Your task to perform on an android device: Go to calendar. Show me events next week Image 0: 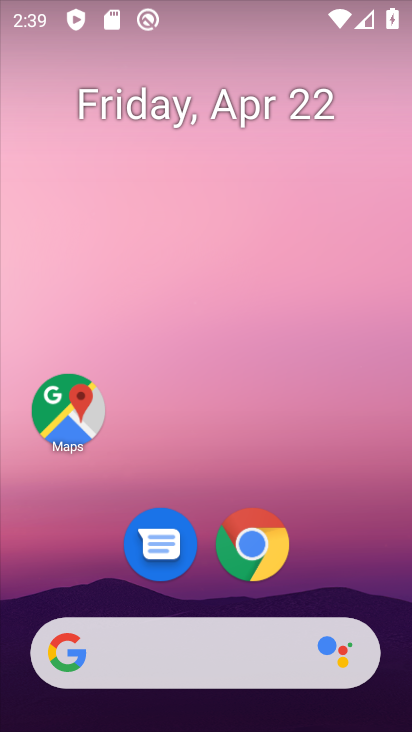
Step 0: drag from (313, 586) to (335, 221)
Your task to perform on an android device: Go to calendar. Show me events next week Image 1: 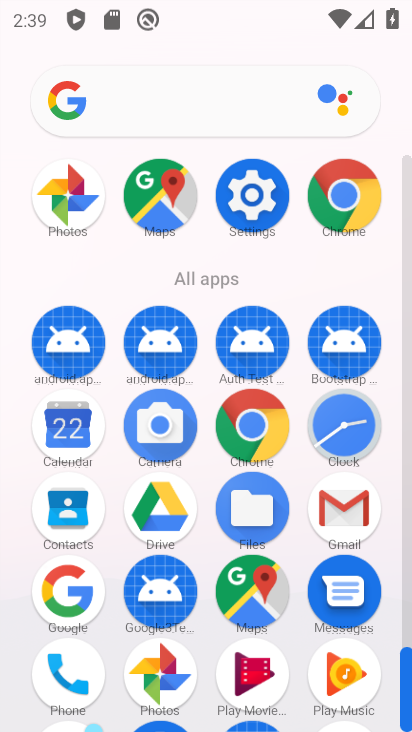
Step 1: click (80, 449)
Your task to perform on an android device: Go to calendar. Show me events next week Image 2: 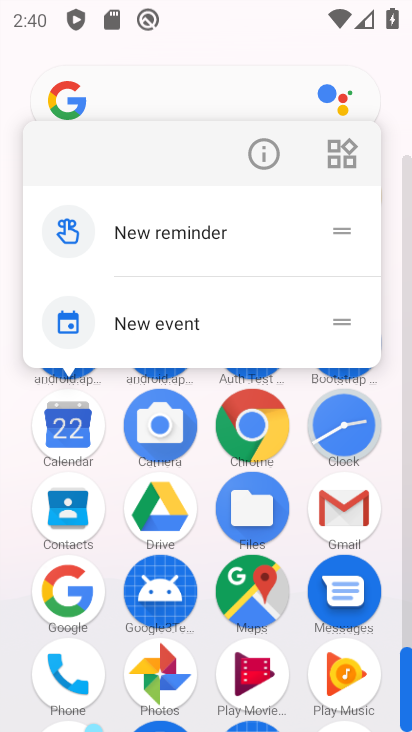
Step 2: click (68, 441)
Your task to perform on an android device: Go to calendar. Show me events next week Image 3: 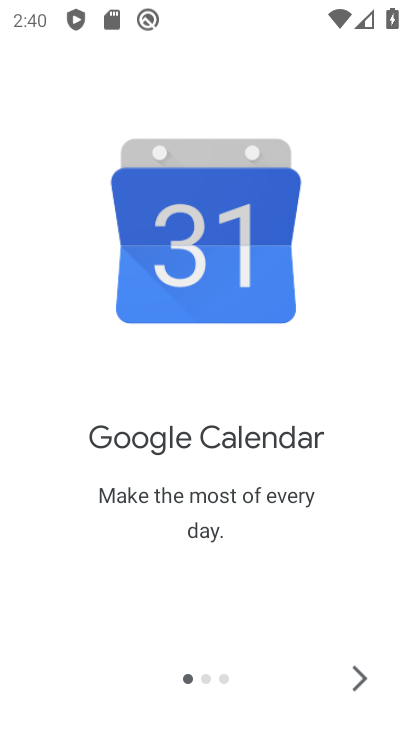
Step 3: click (357, 678)
Your task to perform on an android device: Go to calendar. Show me events next week Image 4: 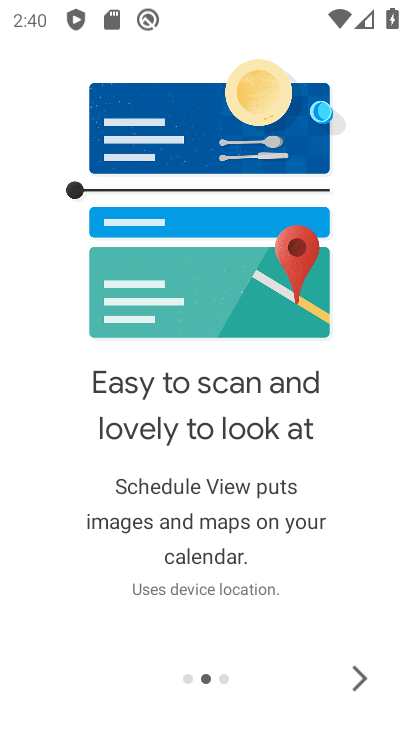
Step 4: click (357, 678)
Your task to perform on an android device: Go to calendar. Show me events next week Image 5: 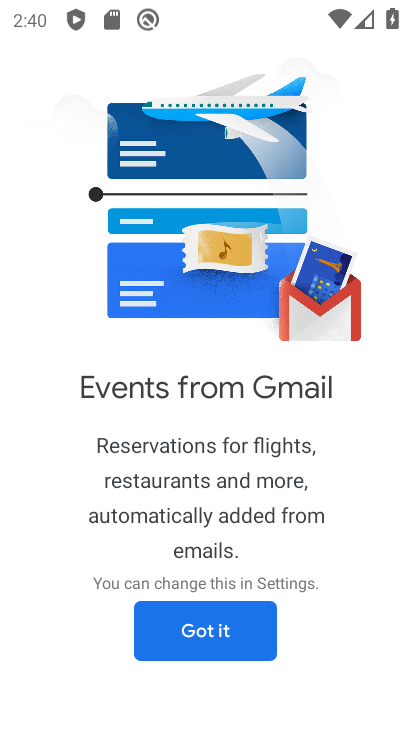
Step 5: click (218, 651)
Your task to perform on an android device: Go to calendar. Show me events next week Image 6: 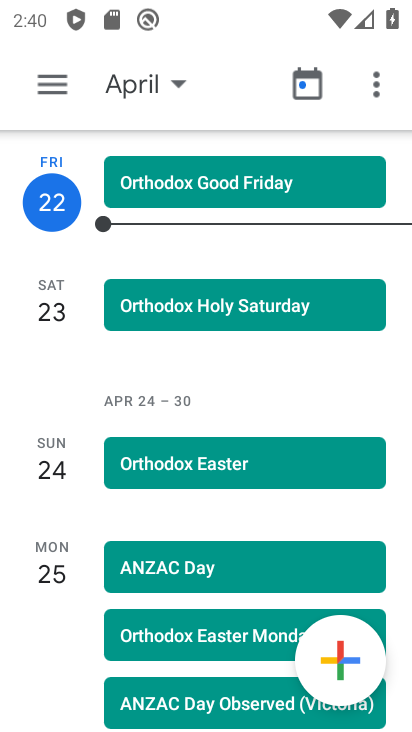
Step 6: click (133, 92)
Your task to perform on an android device: Go to calendar. Show me events next week Image 7: 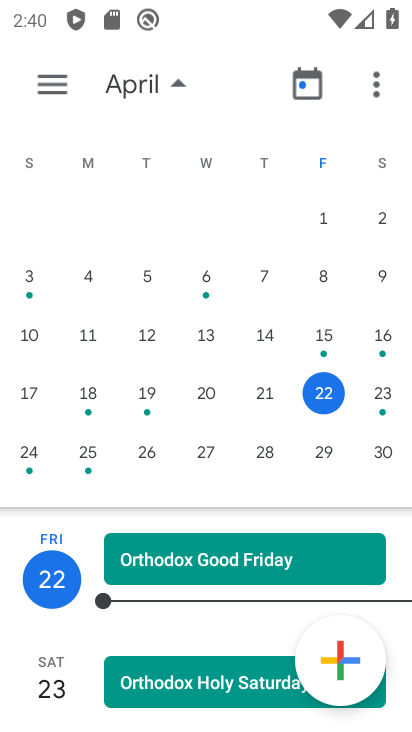
Step 7: drag from (330, 350) to (0, 411)
Your task to perform on an android device: Go to calendar. Show me events next week Image 8: 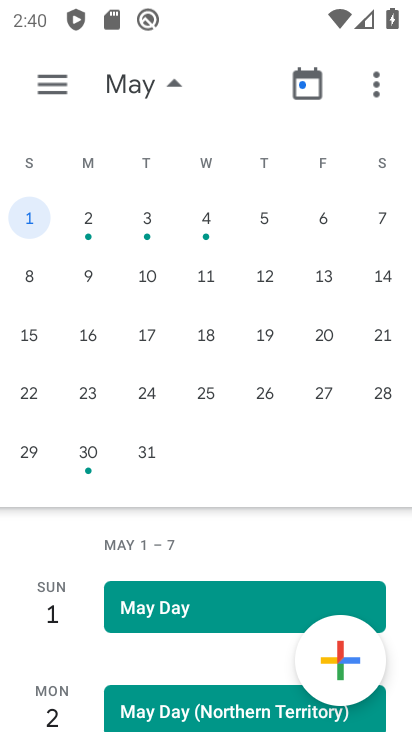
Step 8: drag from (63, 393) to (326, 428)
Your task to perform on an android device: Go to calendar. Show me events next week Image 9: 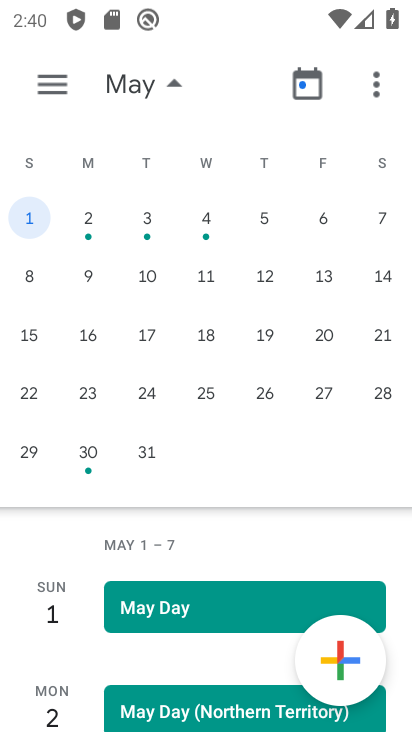
Step 9: drag from (52, 421) to (406, 460)
Your task to perform on an android device: Go to calendar. Show me events next week Image 10: 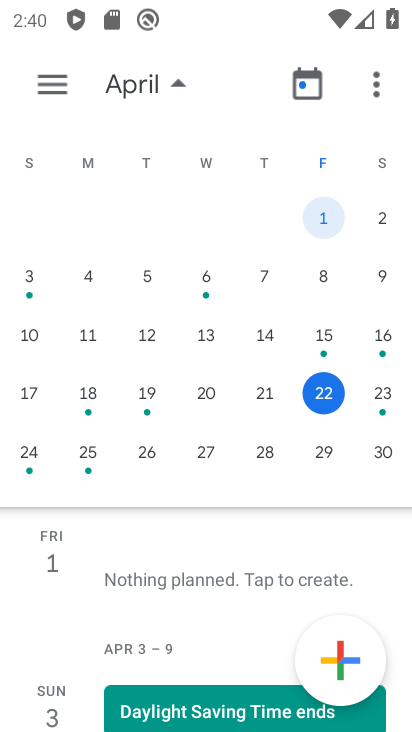
Step 10: click (29, 460)
Your task to perform on an android device: Go to calendar. Show me events next week Image 11: 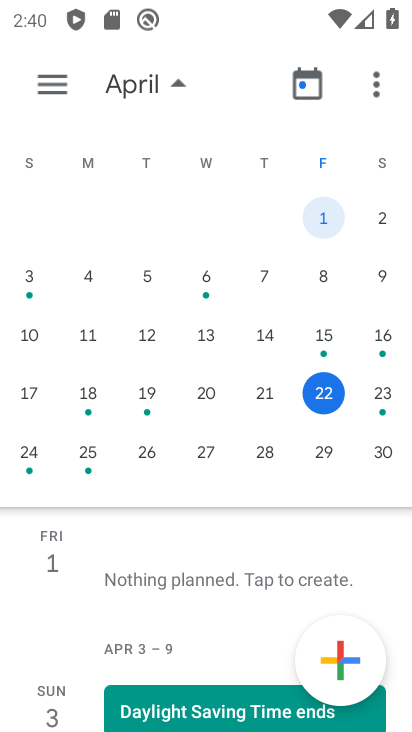
Step 11: click (91, 463)
Your task to perform on an android device: Go to calendar. Show me events next week Image 12: 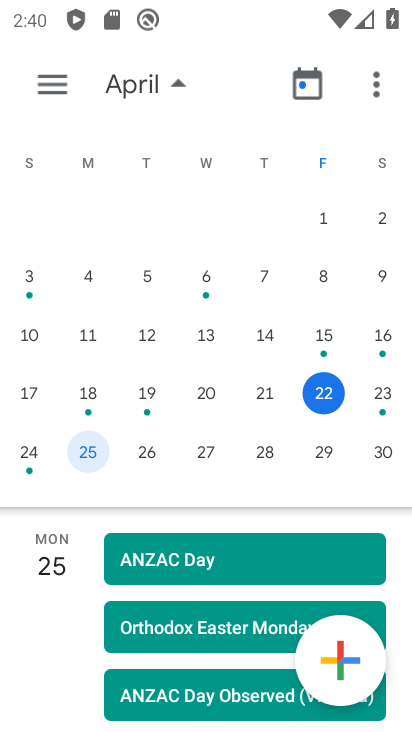
Step 12: click (156, 460)
Your task to perform on an android device: Go to calendar. Show me events next week Image 13: 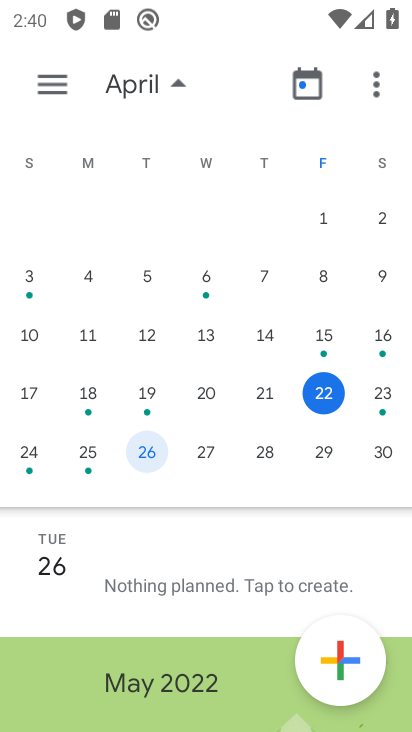
Step 13: click (214, 454)
Your task to perform on an android device: Go to calendar. Show me events next week Image 14: 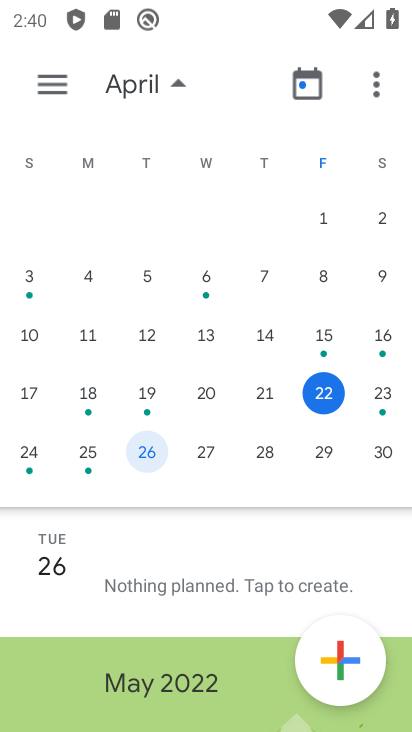
Step 14: click (259, 453)
Your task to perform on an android device: Go to calendar. Show me events next week Image 15: 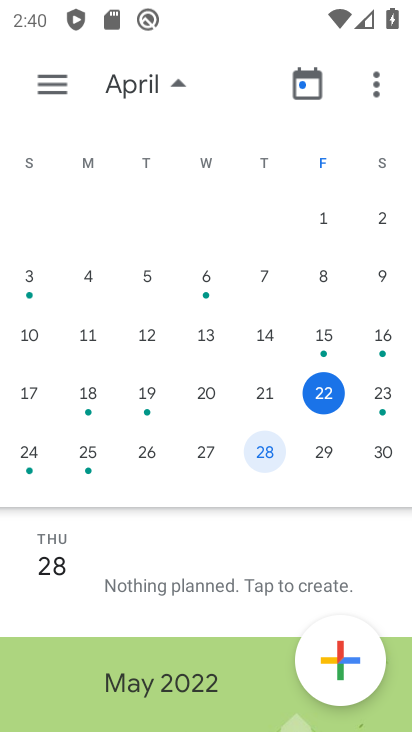
Step 15: click (324, 453)
Your task to perform on an android device: Go to calendar. Show me events next week Image 16: 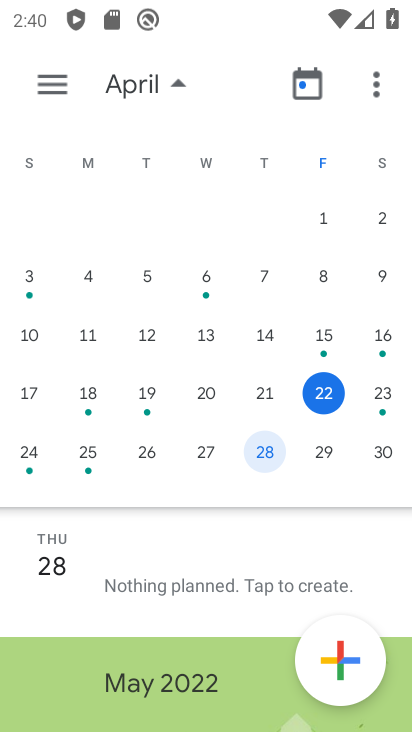
Step 16: click (377, 453)
Your task to perform on an android device: Go to calendar. Show me events next week Image 17: 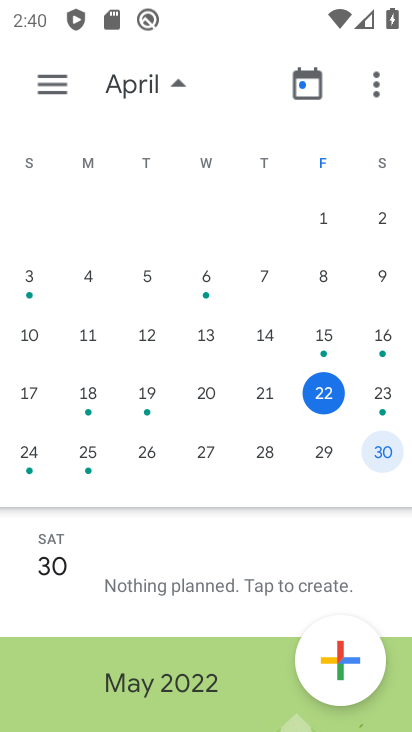
Step 17: task complete